Your task to perform on an android device: open wifi settings Image 0: 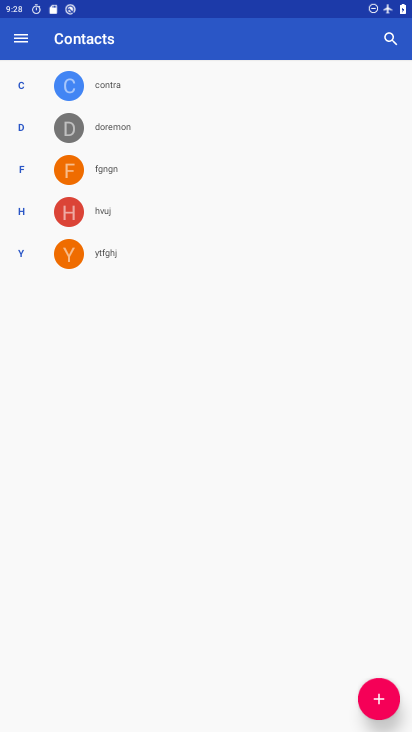
Step 0: press home button
Your task to perform on an android device: open wifi settings Image 1: 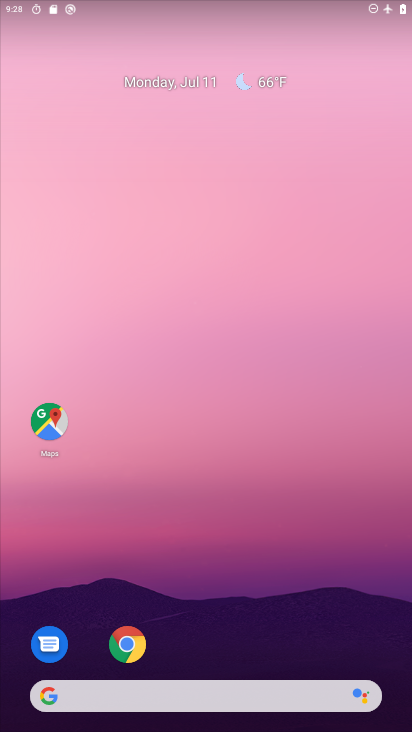
Step 1: drag from (263, 575) to (230, 155)
Your task to perform on an android device: open wifi settings Image 2: 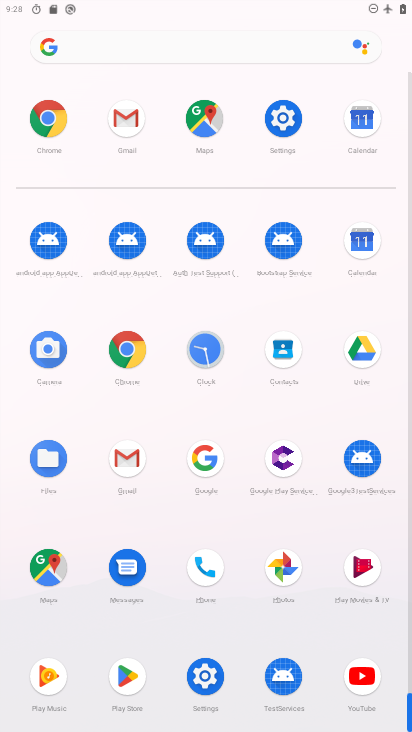
Step 2: click (288, 118)
Your task to perform on an android device: open wifi settings Image 3: 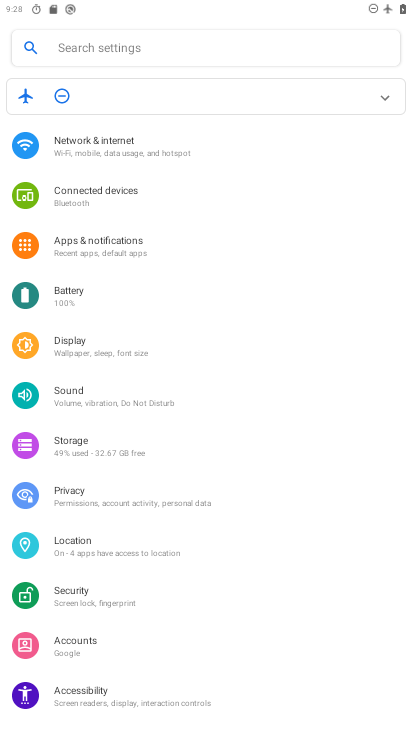
Step 3: click (154, 146)
Your task to perform on an android device: open wifi settings Image 4: 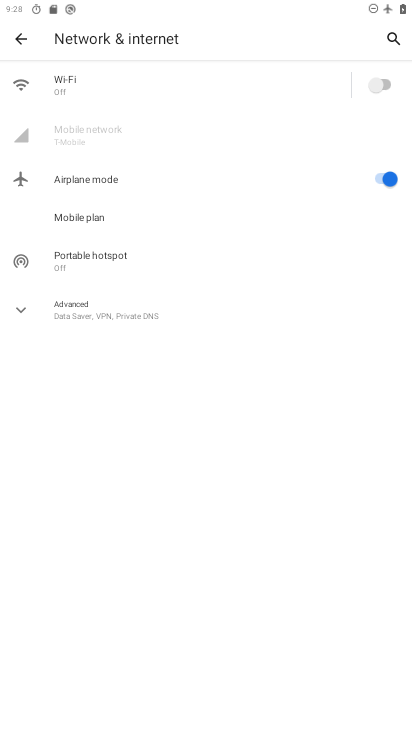
Step 4: click (132, 83)
Your task to perform on an android device: open wifi settings Image 5: 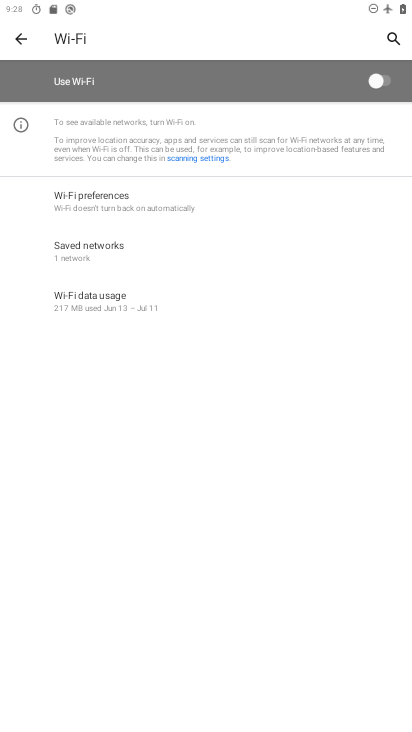
Step 5: task complete